Your task to perform on an android device: allow cookies in the chrome app Image 0: 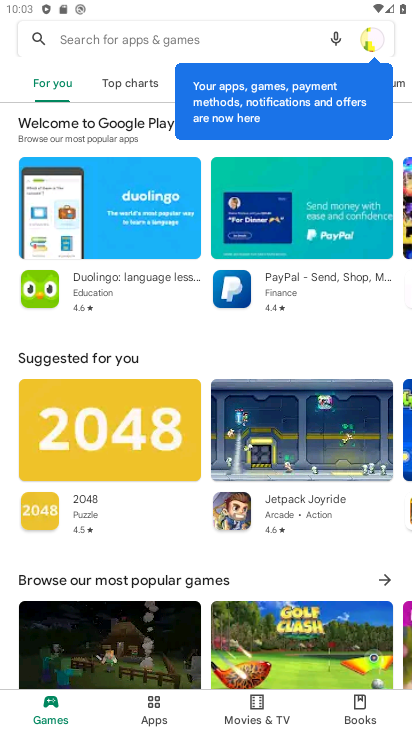
Step 0: press home button
Your task to perform on an android device: allow cookies in the chrome app Image 1: 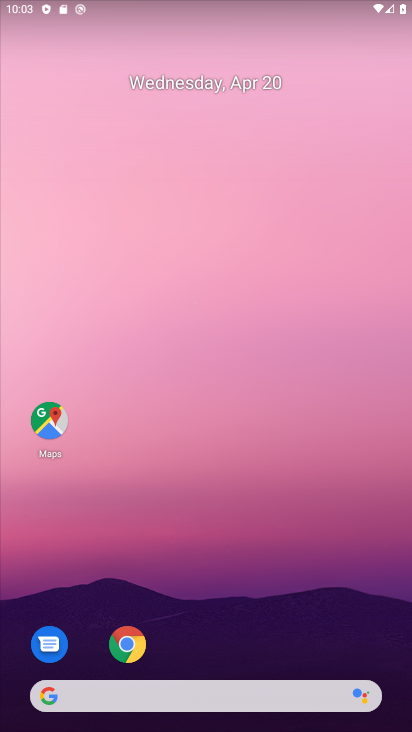
Step 1: click (135, 641)
Your task to perform on an android device: allow cookies in the chrome app Image 2: 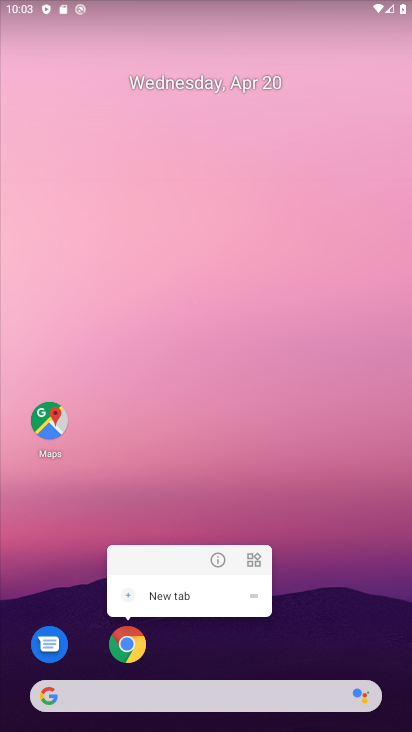
Step 2: click (135, 641)
Your task to perform on an android device: allow cookies in the chrome app Image 3: 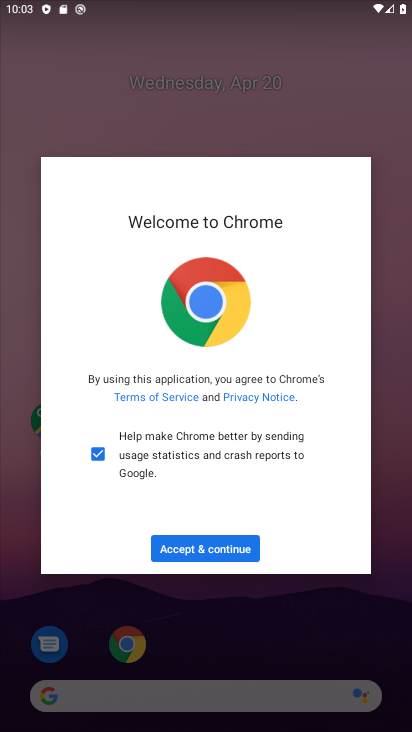
Step 3: click (204, 546)
Your task to perform on an android device: allow cookies in the chrome app Image 4: 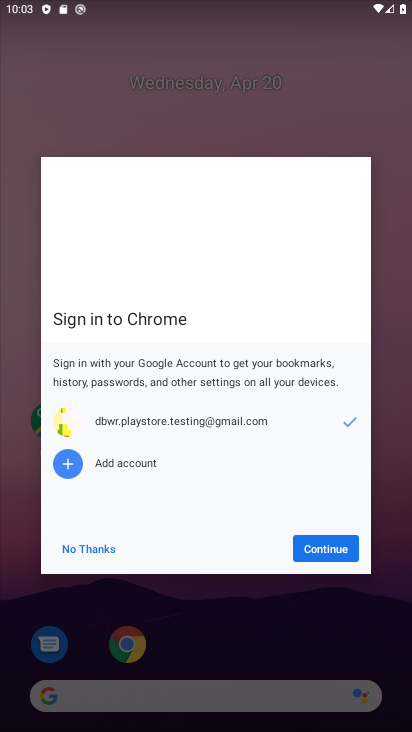
Step 4: click (299, 545)
Your task to perform on an android device: allow cookies in the chrome app Image 5: 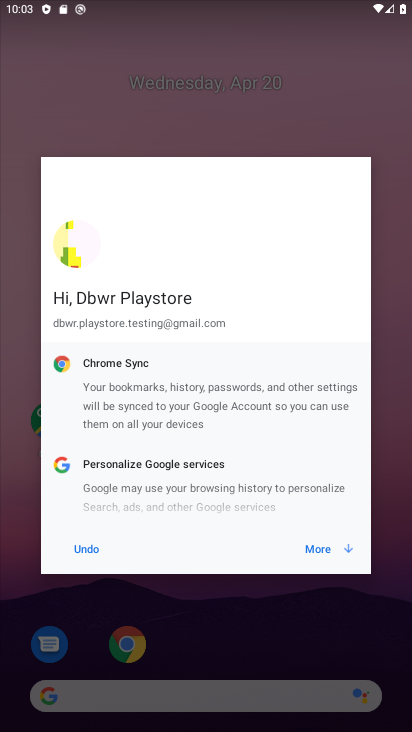
Step 5: click (299, 545)
Your task to perform on an android device: allow cookies in the chrome app Image 6: 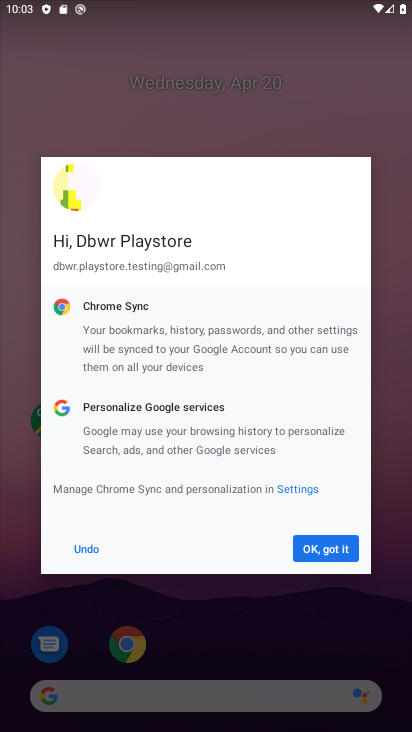
Step 6: click (299, 545)
Your task to perform on an android device: allow cookies in the chrome app Image 7: 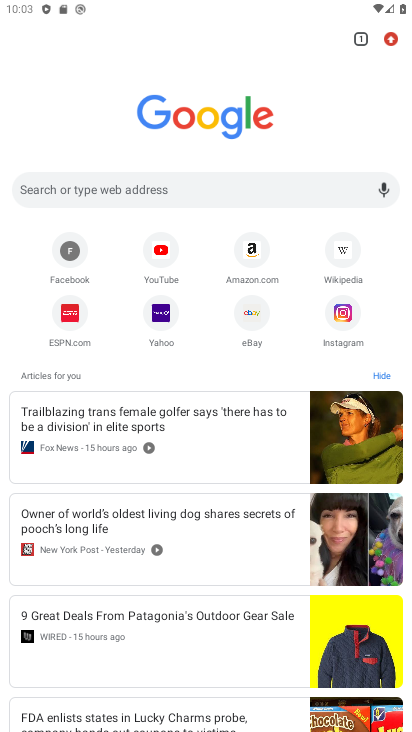
Step 7: click (391, 33)
Your task to perform on an android device: allow cookies in the chrome app Image 8: 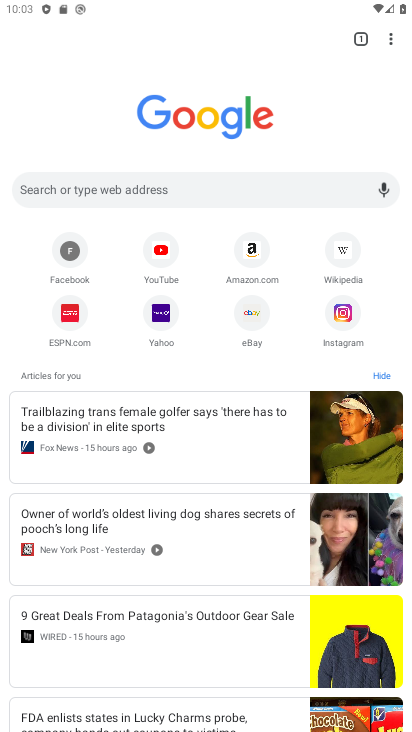
Step 8: click (391, 41)
Your task to perform on an android device: allow cookies in the chrome app Image 9: 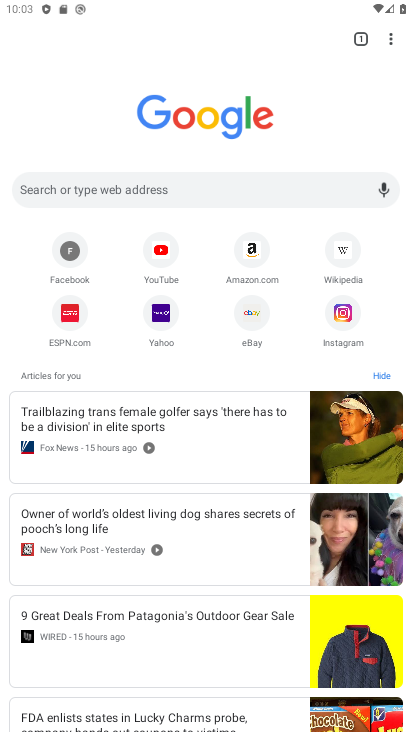
Step 9: click (391, 43)
Your task to perform on an android device: allow cookies in the chrome app Image 10: 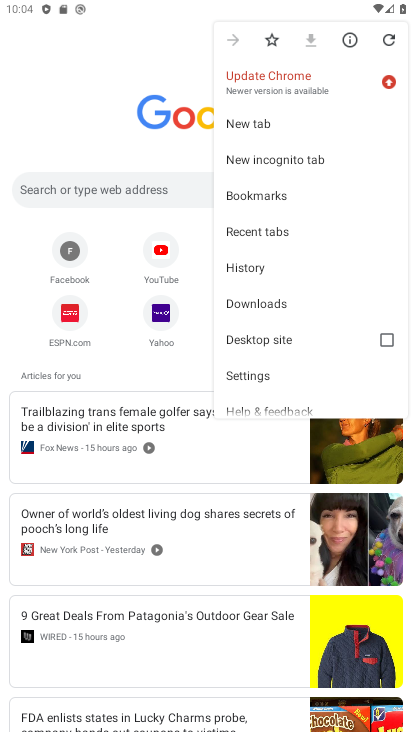
Step 10: click (251, 376)
Your task to perform on an android device: allow cookies in the chrome app Image 11: 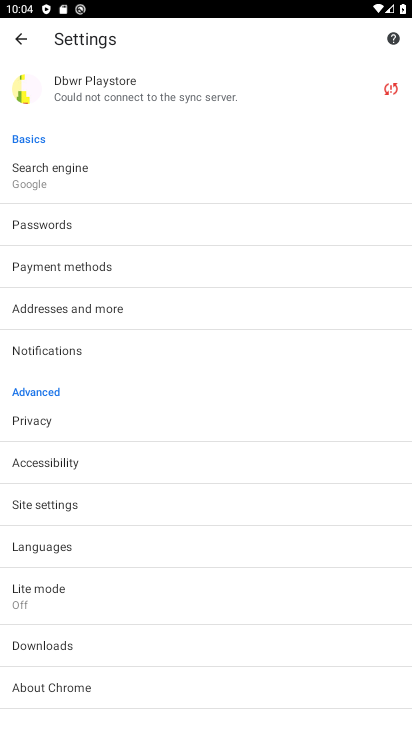
Step 11: drag from (129, 646) to (129, 245)
Your task to perform on an android device: allow cookies in the chrome app Image 12: 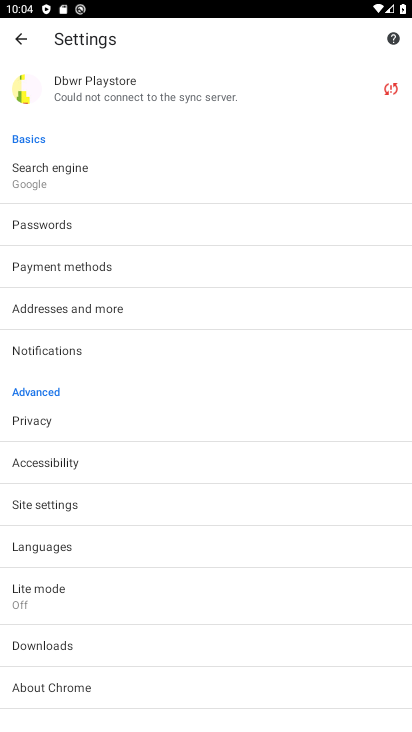
Step 12: click (105, 513)
Your task to perform on an android device: allow cookies in the chrome app Image 13: 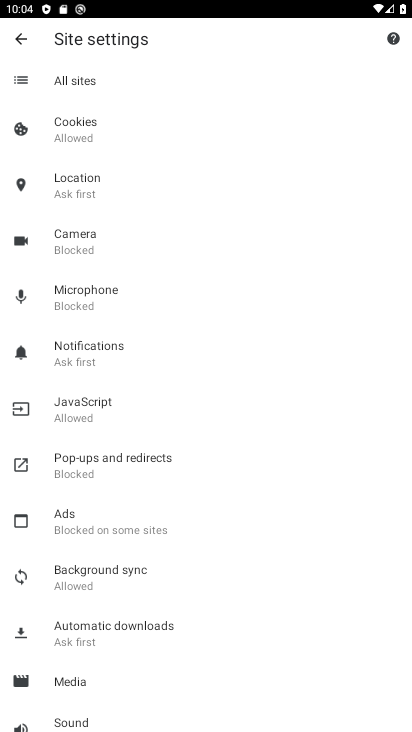
Step 13: click (133, 649)
Your task to perform on an android device: allow cookies in the chrome app Image 14: 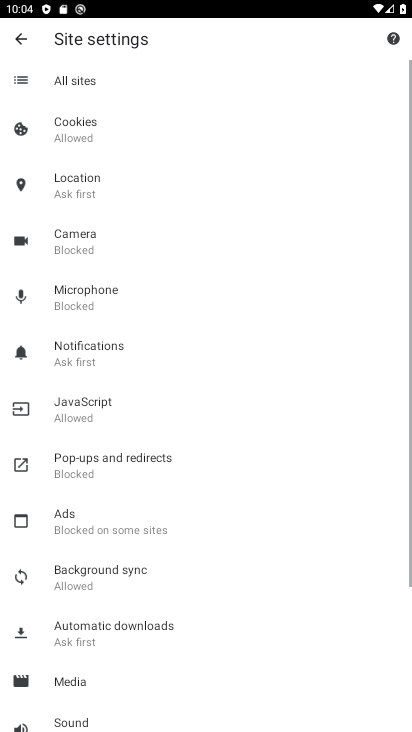
Step 14: click (135, 125)
Your task to perform on an android device: allow cookies in the chrome app Image 15: 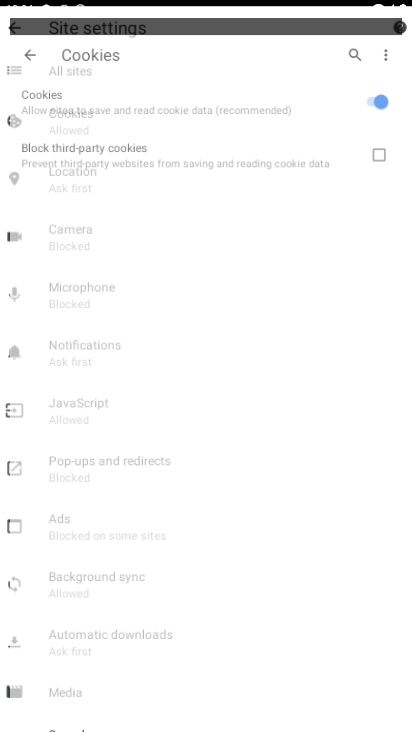
Step 15: task complete